Your task to perform on an android device: toggle notifications settings in the gmail app Image 0: 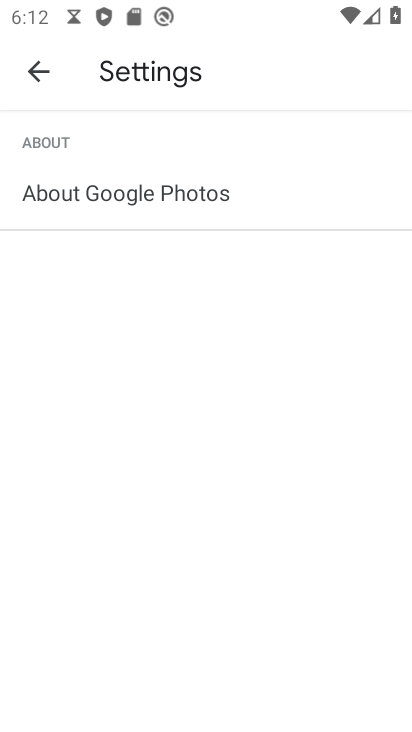
Step 0: press home button
Your task to perform on an android device: toggle notifications settings in the gmail app Image 1: 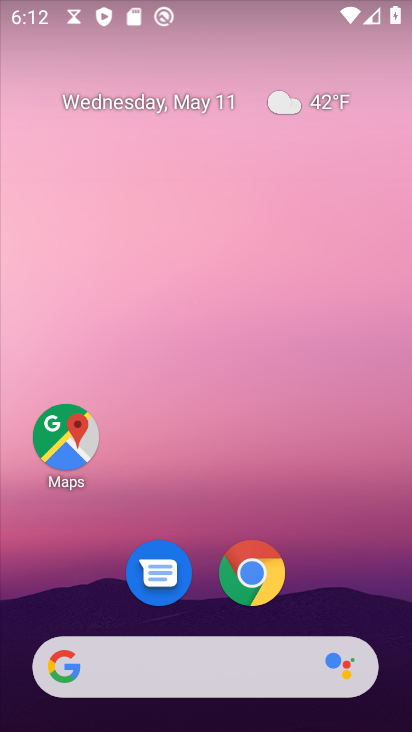
Step 1: drag from (309, 562) to (306, 223)
Your task to perform on an android device: toggle notifications settings in the gmail app Image 2: 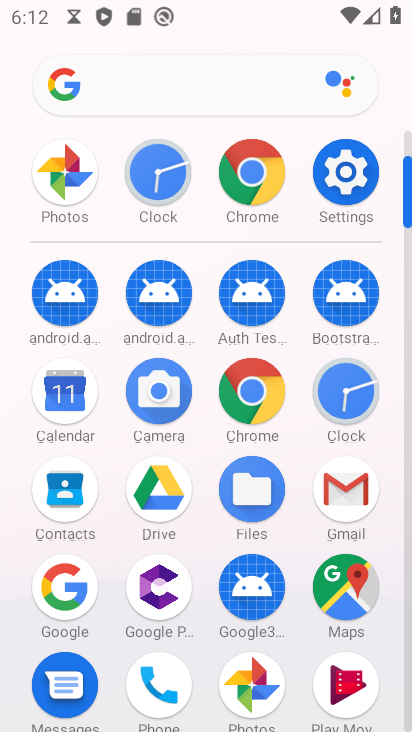
Step 2: click (336, 493)
Your task to perform on an android device: toggle notifications settings in the gmail app Image 3: 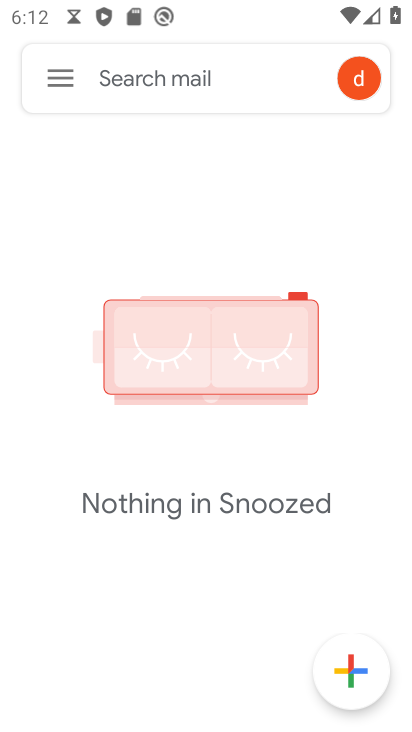
Step 3: click (56, 81)
Your task to perform on an android device: toggle notifications settings in the gmail app Image 4: 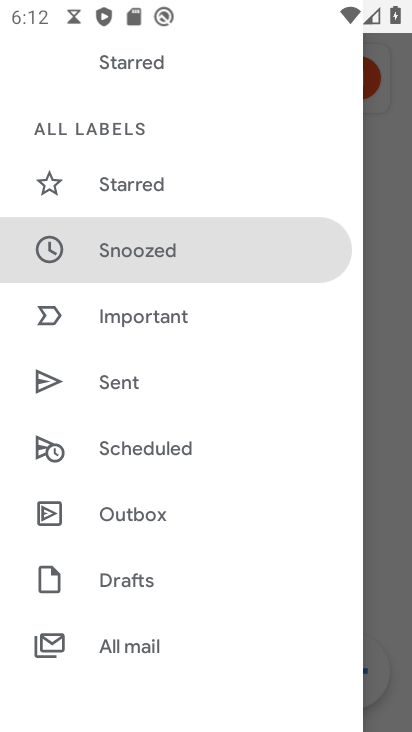
Step 4: drag from (162, 597) to (210, 240)
Your task to perform on an android device: toggle notifications settings in the gmail app Image 5: 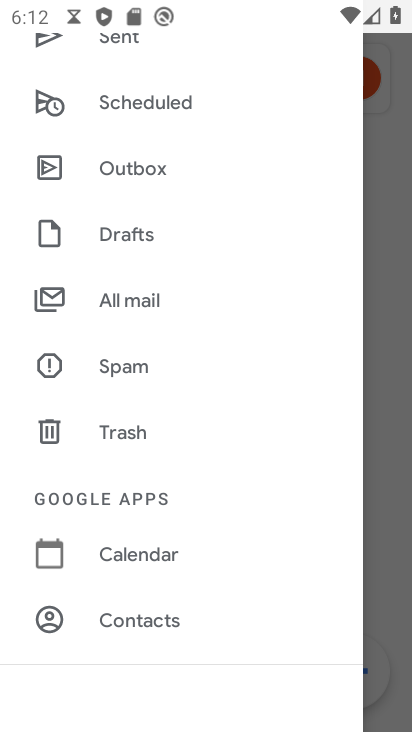
Step 5: drag from (188, 346) to (223, 198)
Your task to perform on an android device: toggle notifications settings in the gmail app Image 6: 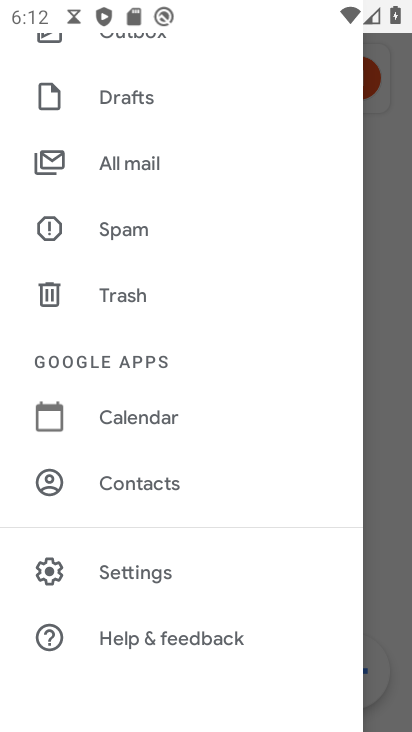
Step 6: click (142, 574)
Your task to perform on an android device: toggle notifications settings in the gmail app Image 7: 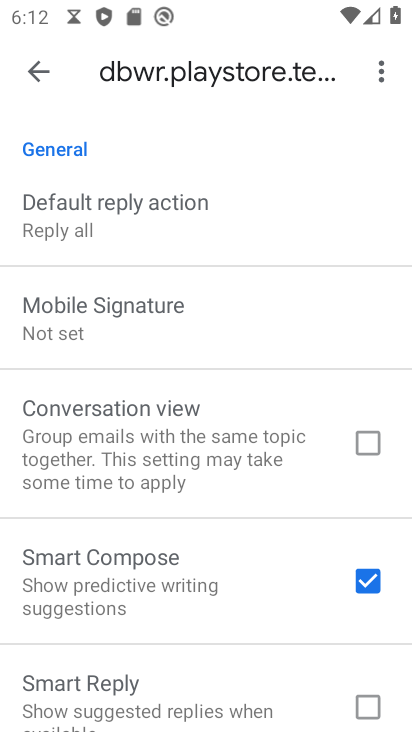
Step 7: click (175, 240)
Your task to perform on an android device: toggle notifications settings in the gmail app Image 8: 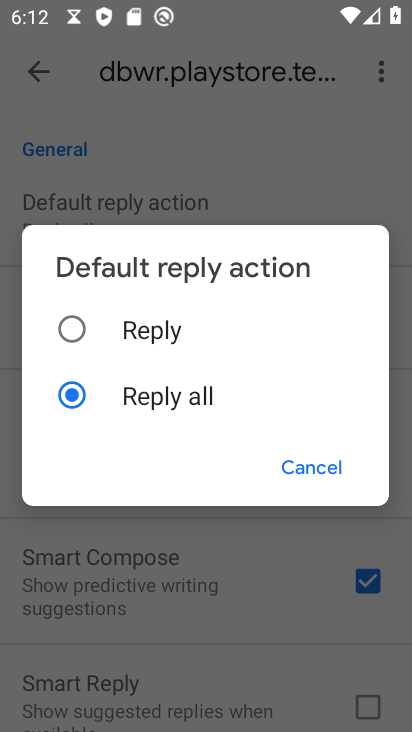
Step 8: click (314, 472)
Your task to perform on an android device: toggle notifications settings in the gmail app Image 9: 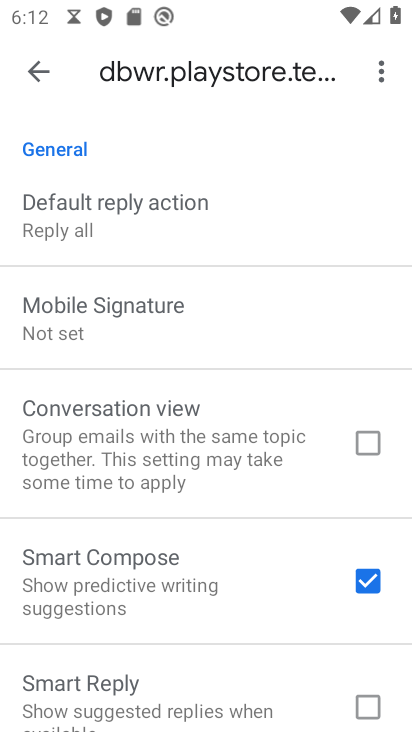
Step 9: drag from (221, 653) to (217, 187)
Your task to perform on an android device: toggle notifications settings in the gmail app Image 10: 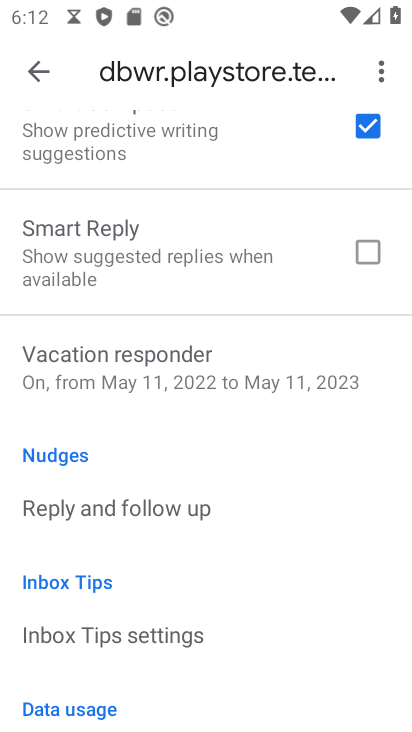
Step 10: drag from (151, 396) to (159, 310)
Your task to perform on an android device: toggle notifications settings in the gmail app Image 11: 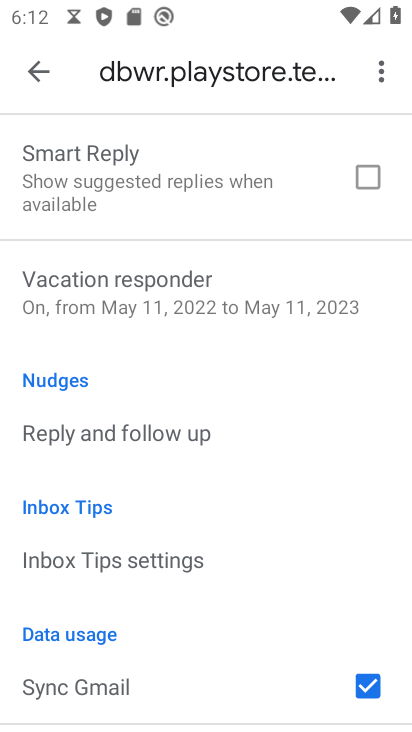
Step 11: drag from (183, 367) to (183, 683)
Your task to perform on an android device: toggle notifications settings in the gmail app Image 12: 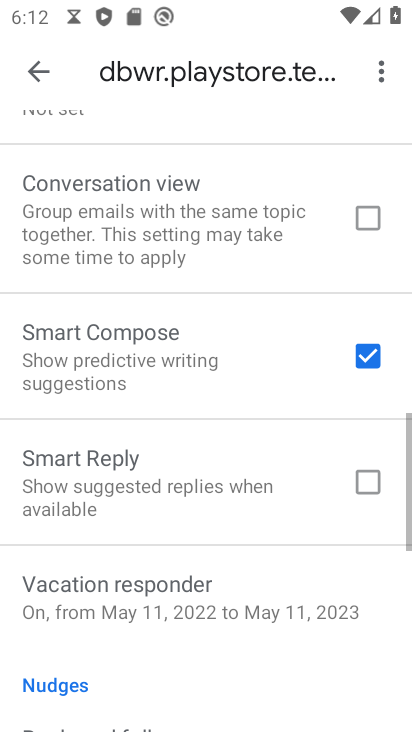
Step 12: drag from (223, 254) to (206, 711)
Your task to perform on an android device: toggle notifications settings in the gmail app Image 13: 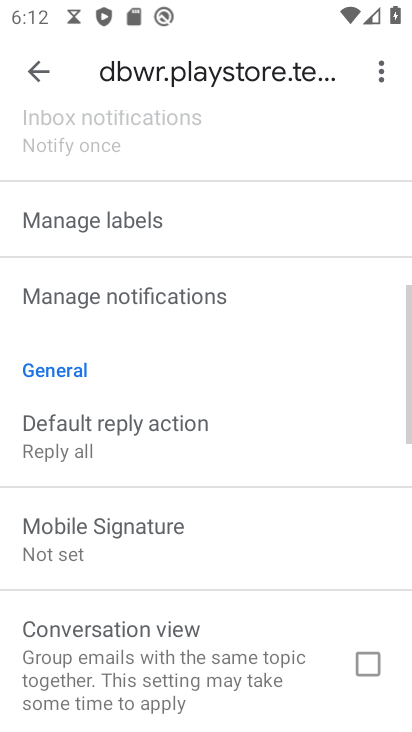
Step 13: drag from (199, 415) to (198, 659)
Your task to perform on an android device: toggle notifications settings in the gmail app Image 14: 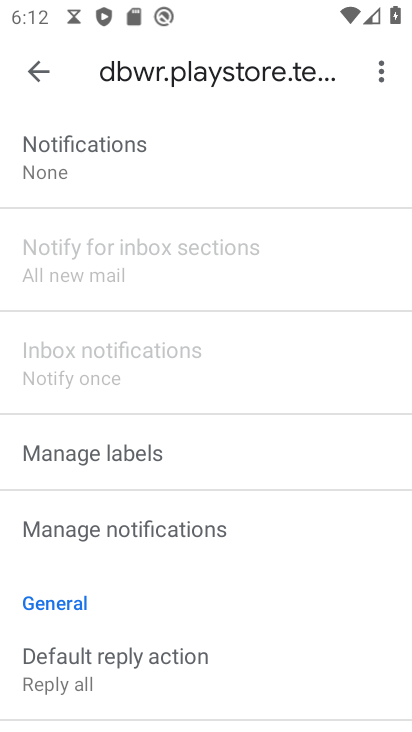
Step 14: click (115, 172)
Your task to perform on an android device: toggle notifications settings in the gmail app Image 15: 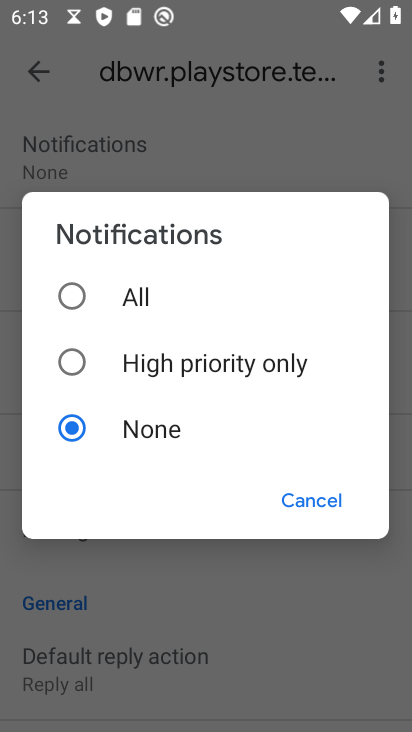
Step 15: click (81, 302)
Your task to perform on an android device: toggle notifications settings in the gmail app Image 16: 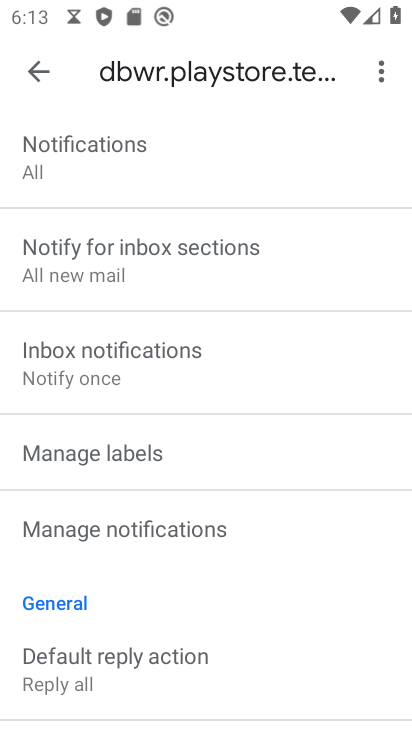
Step 16: task complete